Your task to perform on an android device: turn on priority inbox in the gmail app Image 0: 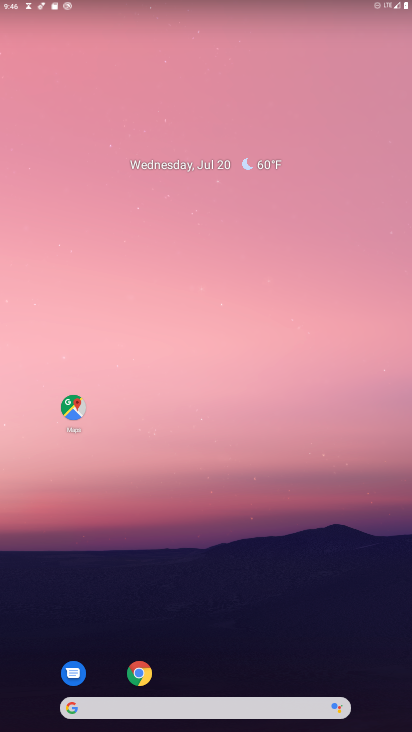
Step 0: drag from (220, 578) to (204, 128)
Your task to perform on an android device: turn on priority inbox in the gmail app Image 1: 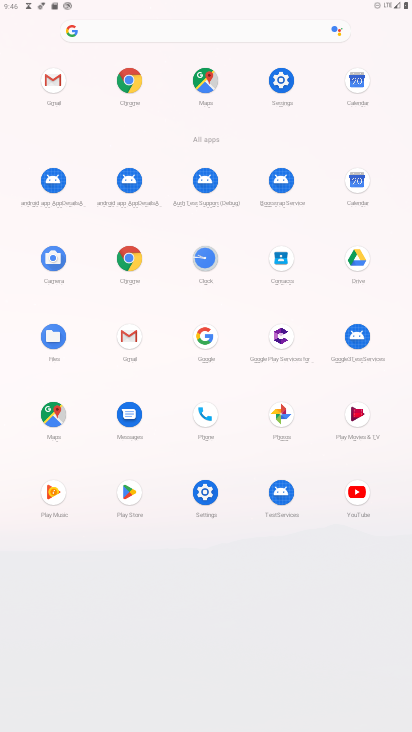
Step 1: click (52, 96)
Your task to perform on an android device: turn on priority inbox in the gmail app Image 2: 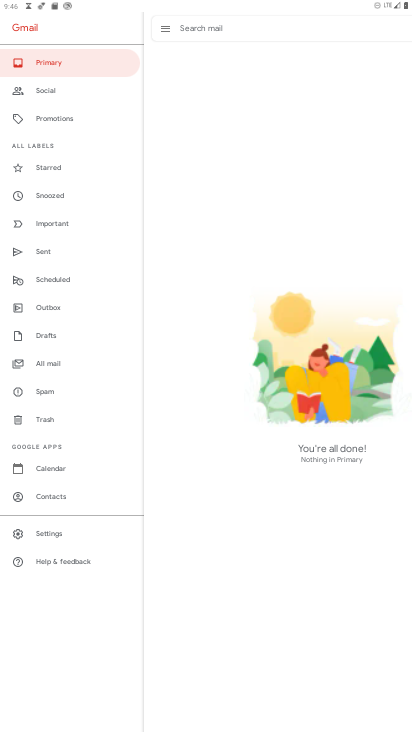
Step 2: click (52, 533)
Your task to perform on an android device: turn on priority inbox in the gmail app Image 3: 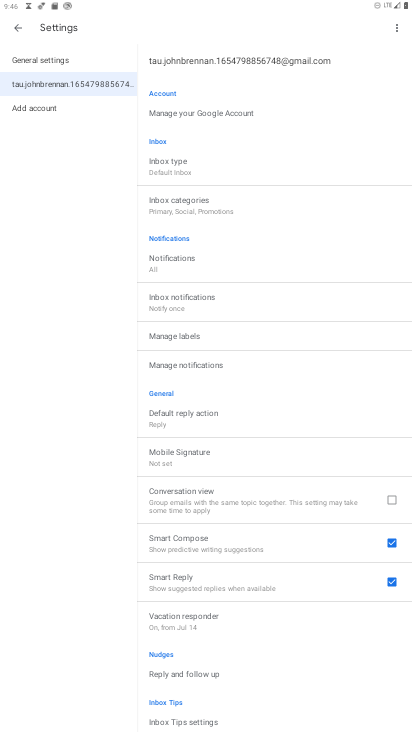
Step 3: click (184, 173)
Your task to perform on an android device: turn on priority inbox in the gmail app Image 4: 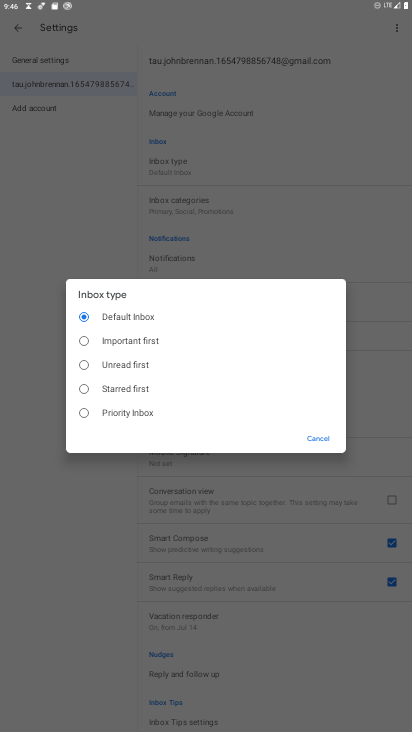
Step 4: click (84, 418)
Your task to perform on an android device: turn on priority inbox in the gmail app Image 5: 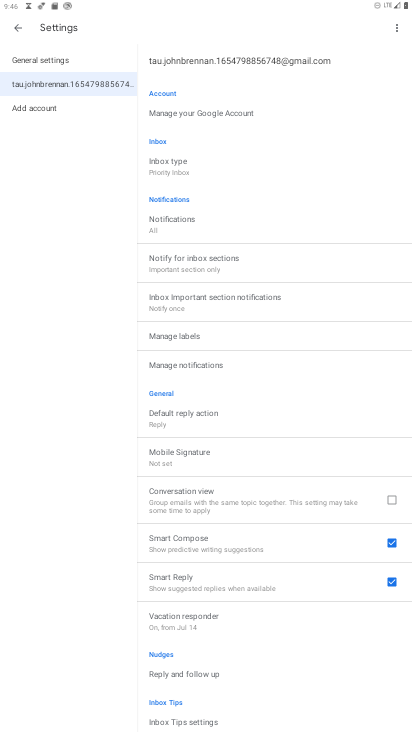
Step 5: task complete